Your task to perform on an android device: Open the web browser Image 0: 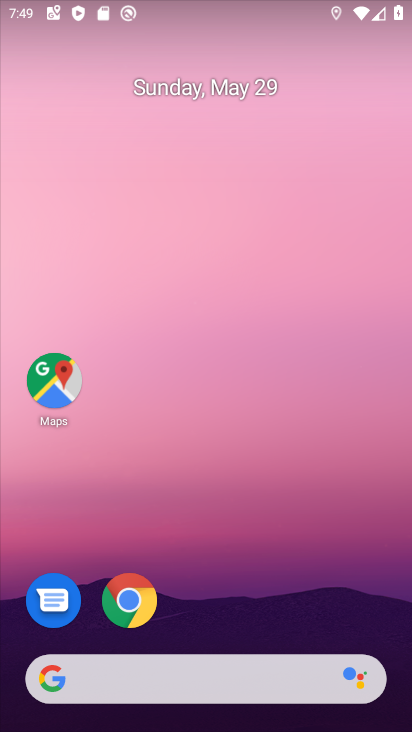
Step 0: click (129, 598)
Your task to perform on an android device: Open the web browser Image 1: 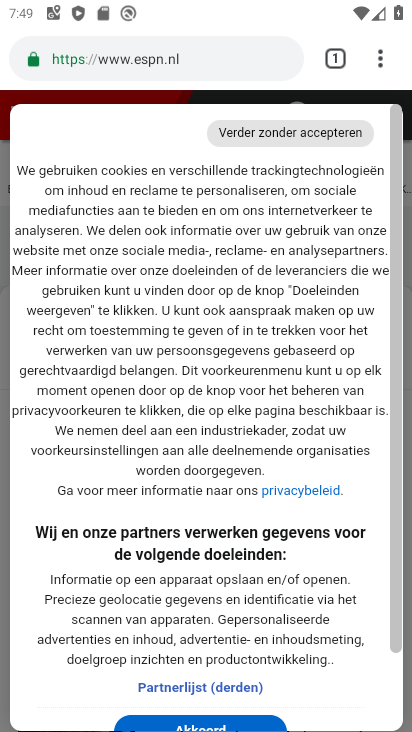
Step 1: task complete